Your task to perform on an android device: Clear the shopping cart on amazon.com. Search for apple airpods on amazon.com, select the first entry, add it to the cart, then select checkout. Image 0: 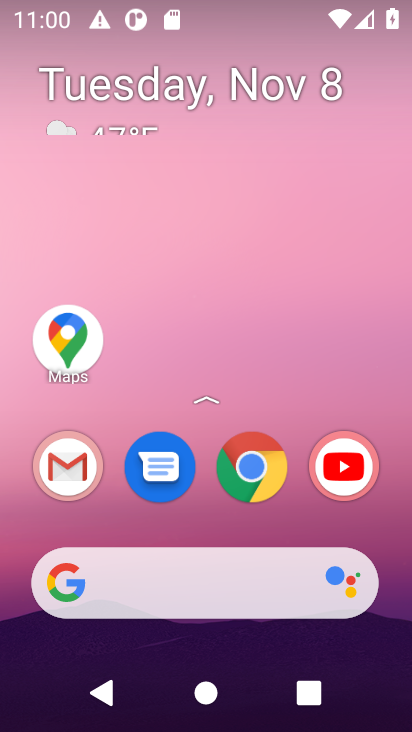
Step 0: click (186, 570)
Your task to perform on an android device: Clear the shopping cart on amazon.com. Search for apple airpods on amazon.com, select the first entry, add it to the cart, then select checkout. Image 1: 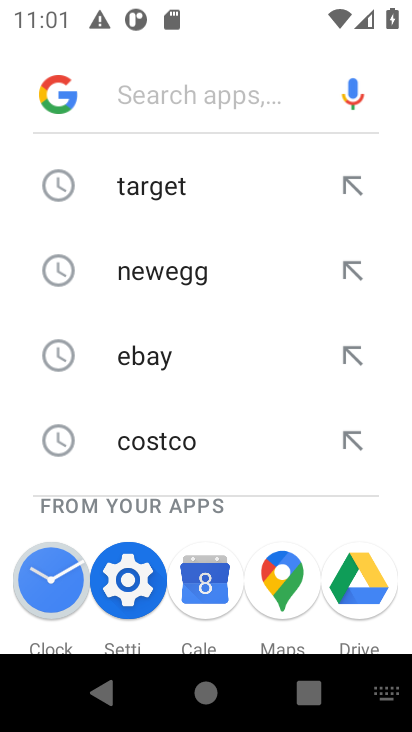
Step 1: task complete